Your task to perform on an android device: open a bookmark in the chrome app Image 0: 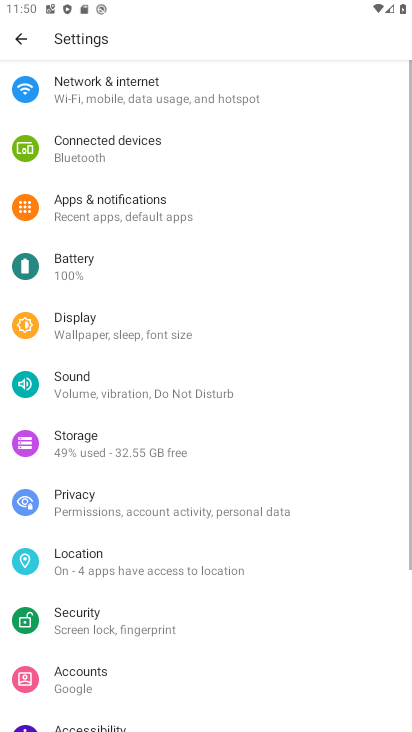
Step 0: press home button
Your task to perform on an android device: open a bookmark in the chrome app Image 1: 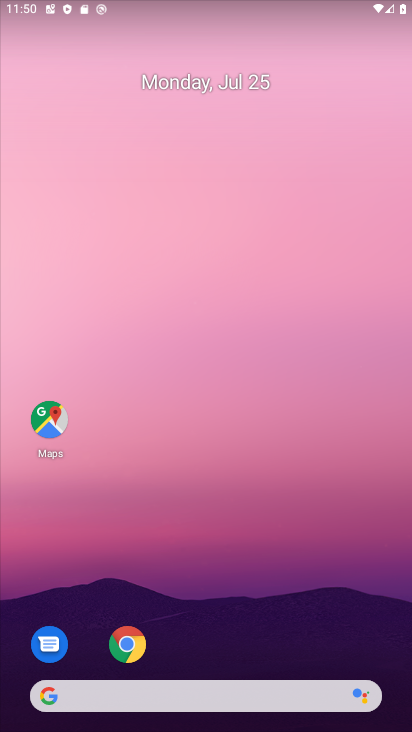
Step 1: drag from (294, 620) to (281, 132)
Your task to perform on an android device: open a bookmark in the chrome app Image 2: 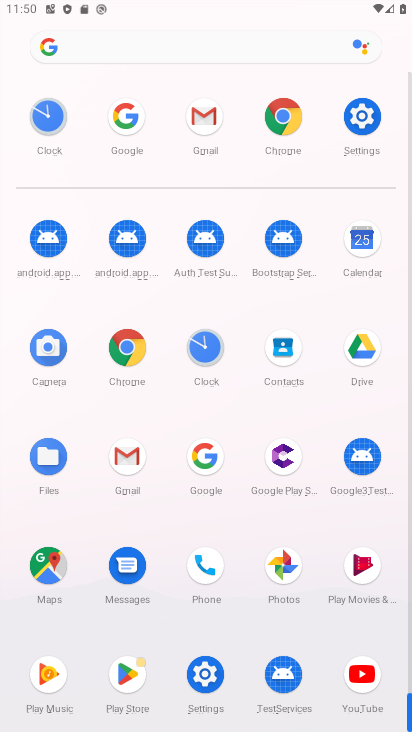
Step 2: click (99, 368)
Your task to perform on an android device: open a bookmark in the chrome app Image 3: 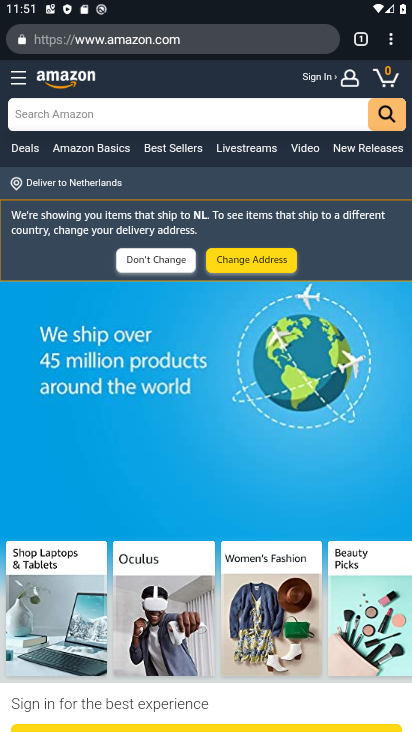
Step 3: click (397, 38)
Your task to perform on an android device: open a bookmark in the chrome app Image 4: 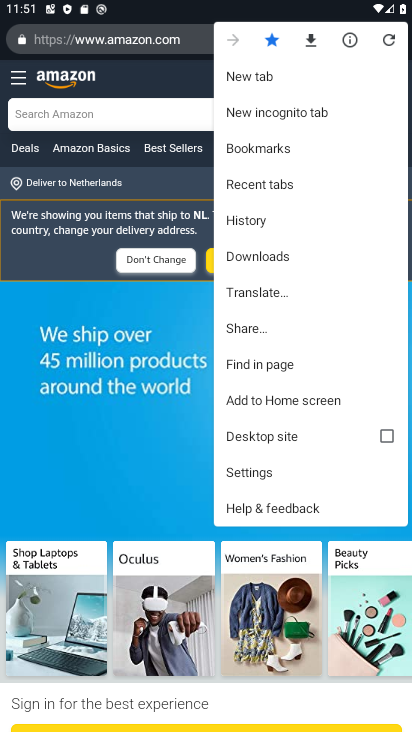
Step 4: click (286, 158)
Your task to perform on an android device: open a bookmark in the chrome app Image 5: 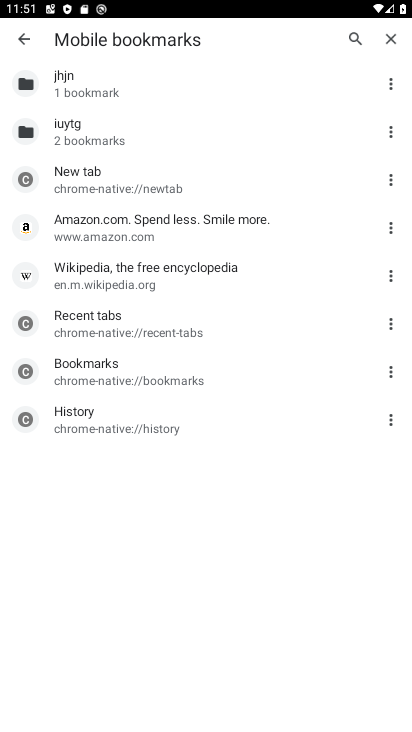
Step 5: click (204, 267)
Your task to perform on an android device: open a bookmark in the chrome app Image 6: 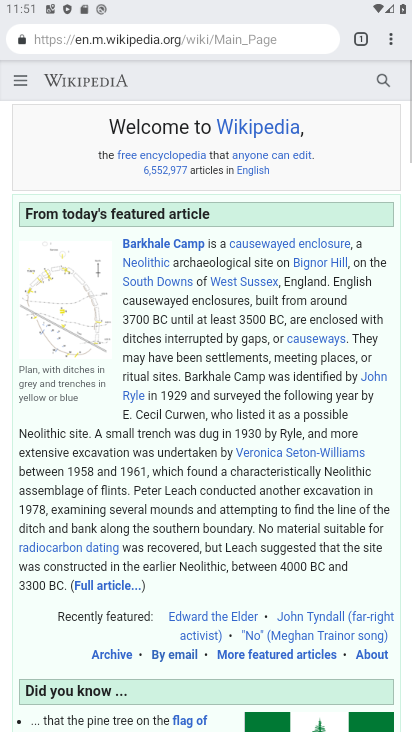
Step 6: task complete